Your task to perform on an android device: toggle wifi Image 0: 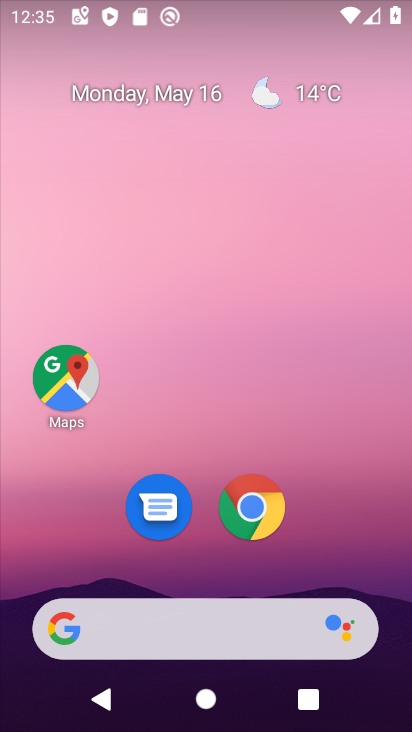
Step 0: drag from (296, 287) to (249, 26)
Your task to perform on an android device: toggle wifi Image 1: 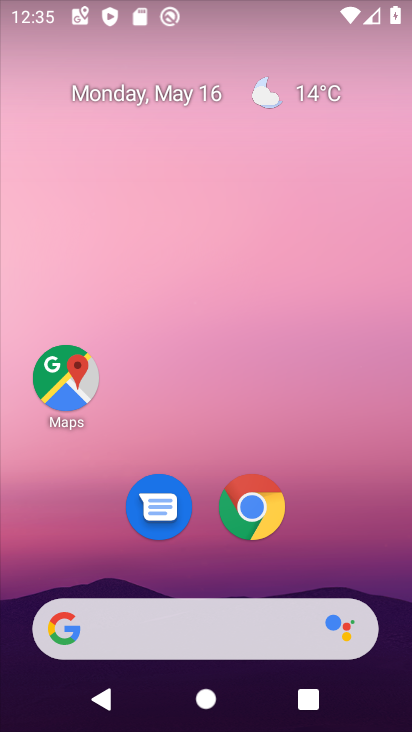
Step 1: click (231, 14)
Your task to perform on an android device: toggle wifi Image 2: 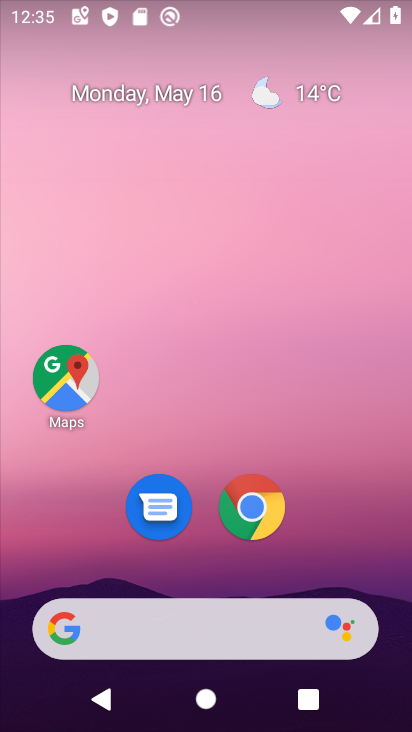
Step 2: drag from (307, 530) to (223, 35)
Your task to perform on an android device: toggle wifi Image 3: 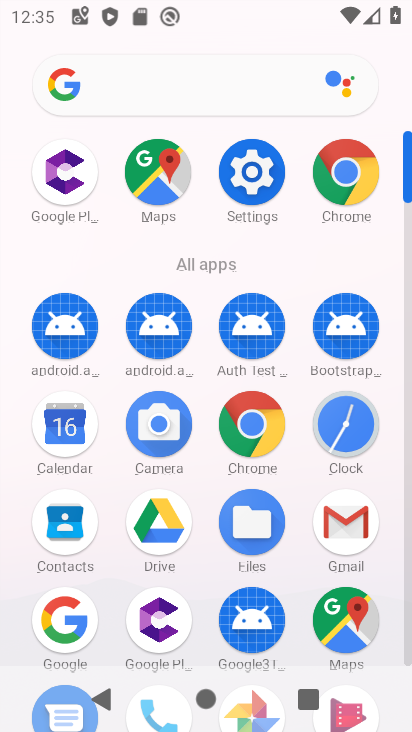
Step 3: click (261, 172)
Your task to perform on an android device: toggle wifi Image 4: 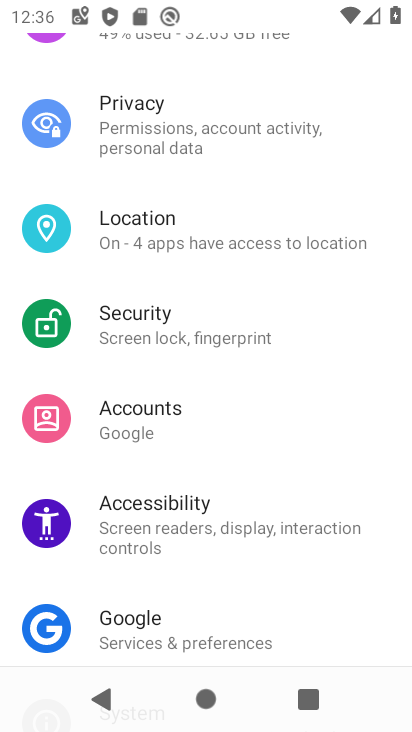
Step 4: drag from (260, 131) to (206, 683)
Your task to perform on an android device: toggle wifi Image 5: 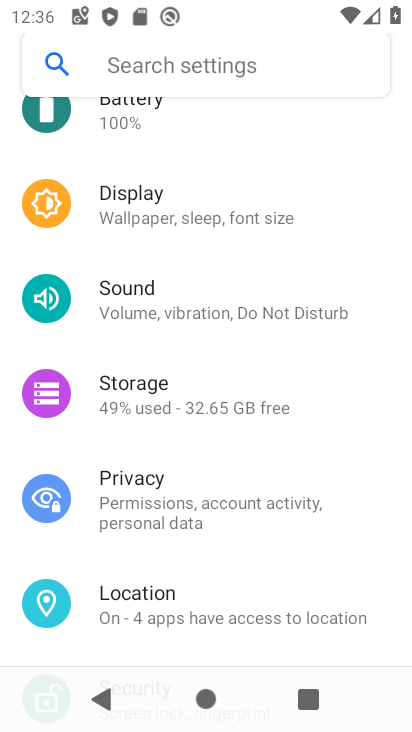
Step 5: drag from (217, 327) to (217, 639)
Your task to perform on an android device: toggle wifi Image 6: 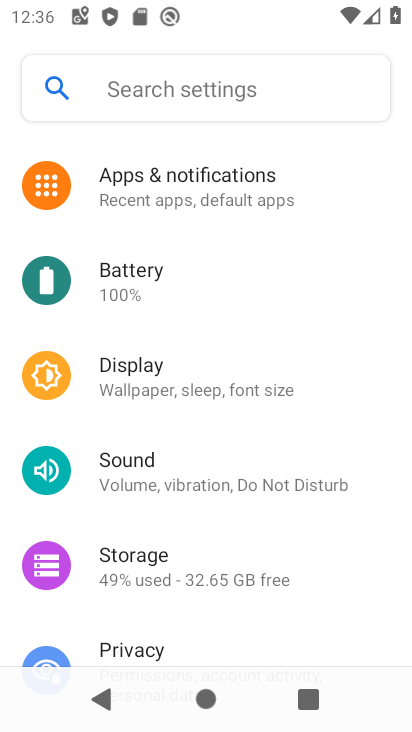
Step 6: drag from (213, 218) to (225, 610)
Your task to perform on an android device: toggle wifi Image 7: 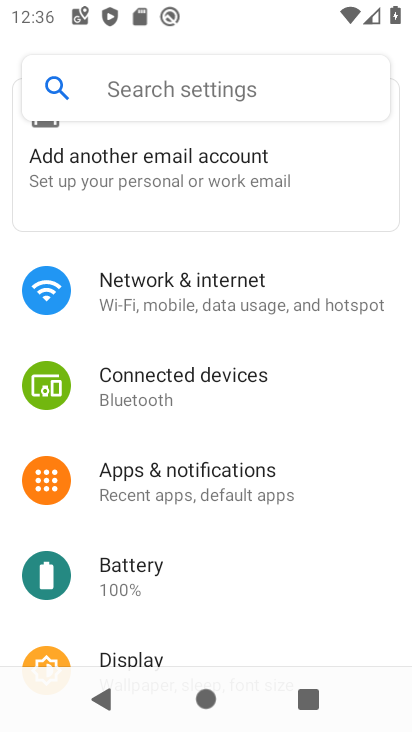
Step 7: click (206, 272)
Your task to perform on an android device: toggle wifi Image 8: 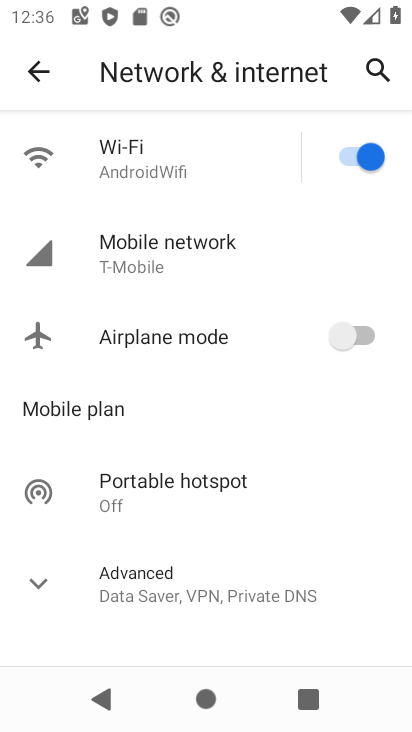
Step 8: click (351, 156)
Your task to perform on an android device: toggle wifi Image 9: 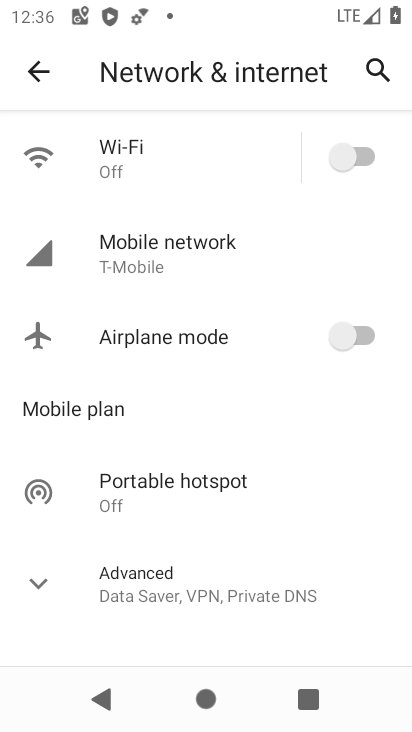
Step 9: task complete